Your task to perform on an android device: delete a single message in the gmail app Image 0: 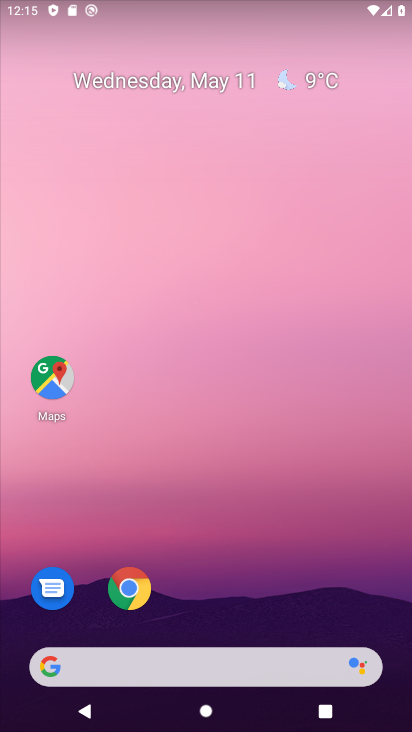
Step 0: drag from (292, 608) to (301, 2)
Your task to perform on an android device: delete a single message in the gmail app Image 1: 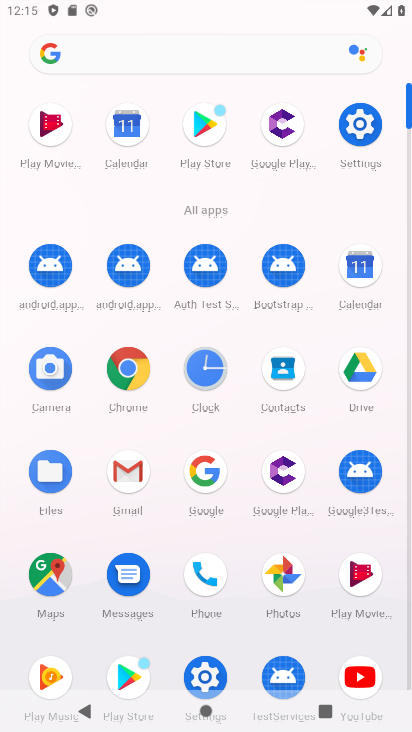
Step 1: click (118, 479)
Your task to perform on an android device: delete a single message in the gmail app Image 2: 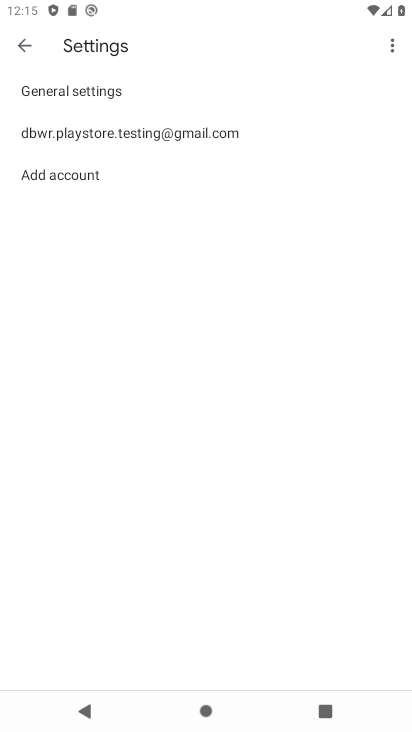
Step 2: click (28, 45)
Your task to perform on an android device: delete a single message in the gmail app Image 3: 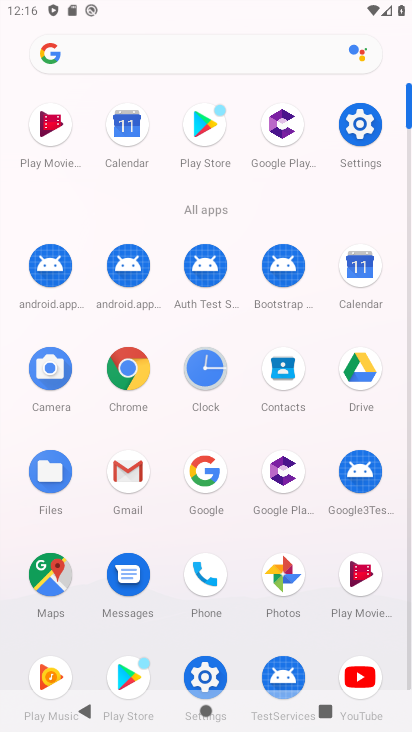
Step 3: click (134, 448)
Your task to perform on an android device: delete a single message in the gmail app Image 4: 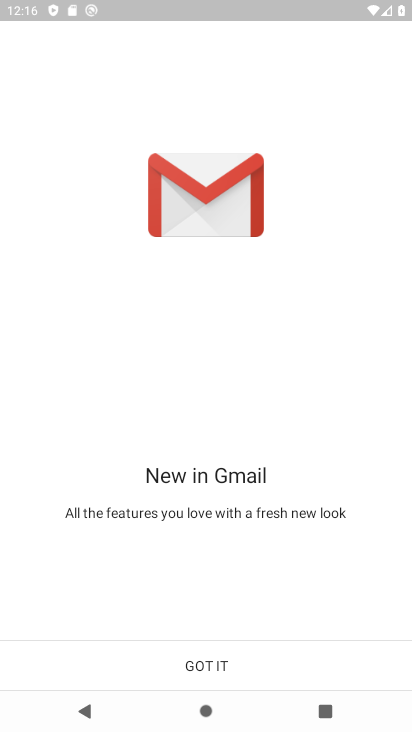
Step 4: click (175, 663)
Your task to perform on an android device: delete a single message in the gmail app Image 5: 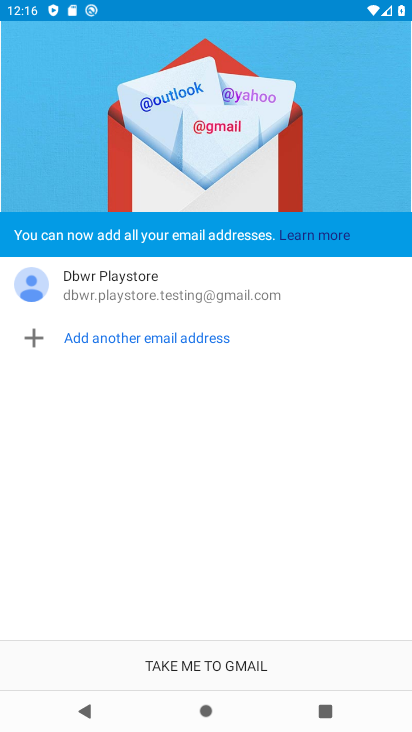
Step 5: click (175, 663)
Your task to perform on an android device: delete a single message in the gmail app Image 6: 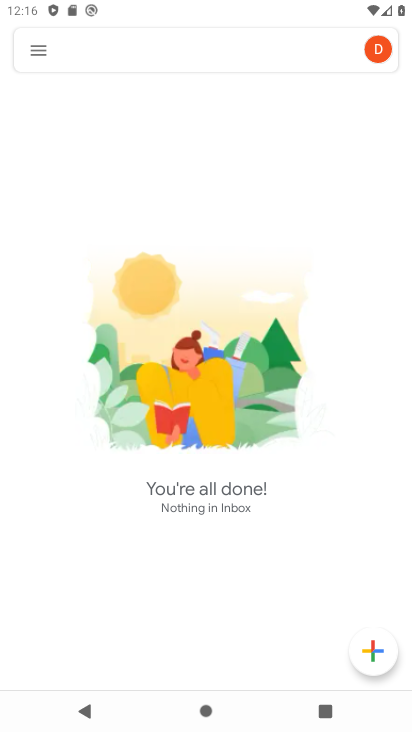
Step 6: click (27, 51)
Your task to perform on an android device: delete a single message in the gmail app Image 7: 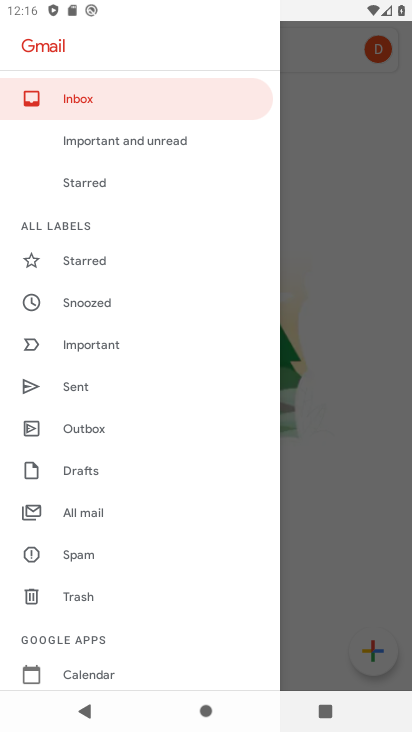
Step 7: click (104, 508)
Your task to perform on an android device: delete a single message in the gmail app Image 8: 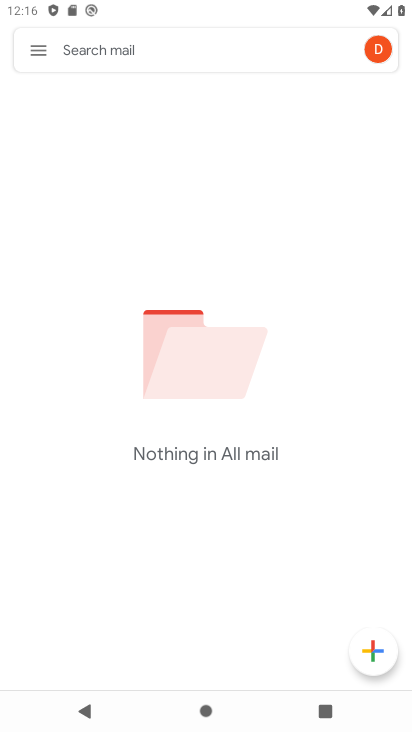
Step 8: task complete